Your task to perform on an android device: set the timer Image 0: 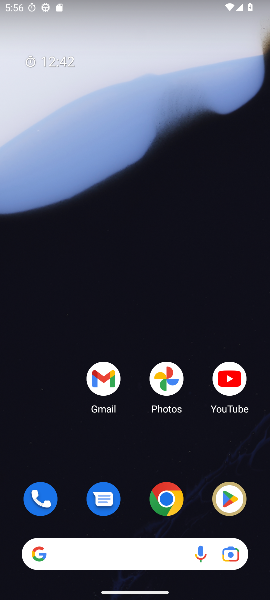
Step 0: drag from (78, 567) to (43, 81)
Your task to perform on an android device: set the timer Image 1: 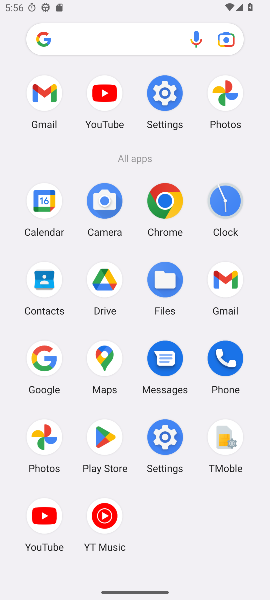
Step 1: click (204, 197)
Your task to perform on an android device: set the timer Image 2: 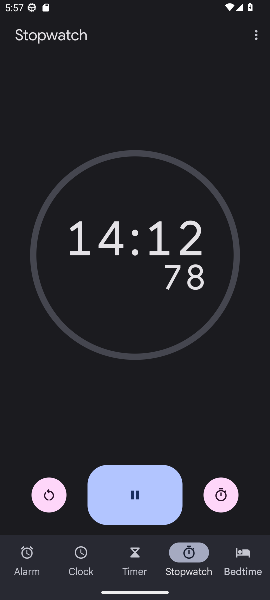
Step 2: click (131, 564)
Your task to perform on an android device: set the timer Image 3: 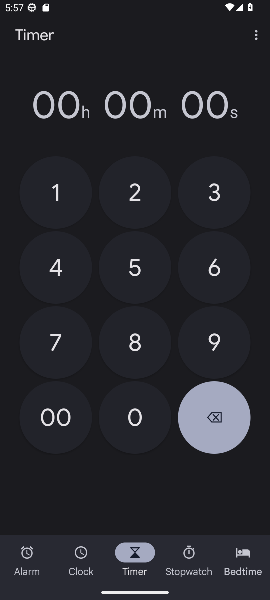
Step 3: click (128, 190)
Your task to perform on an android device: set the timer Image 4: 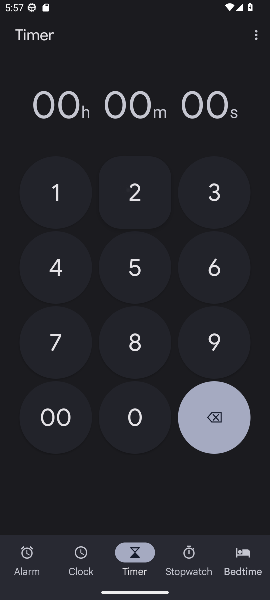
Step 4: click (136, 269)
Your task to perform on an android device: set the timer Image 5: 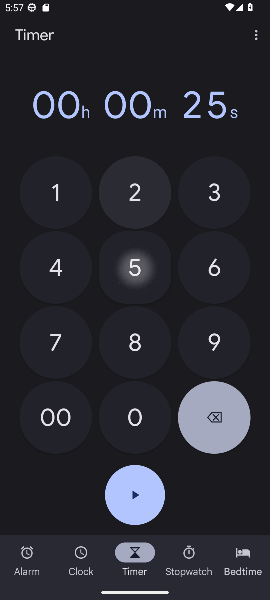
Step 5: click (123, 196)
Your task to perform on an android device: set the timer Image 6: 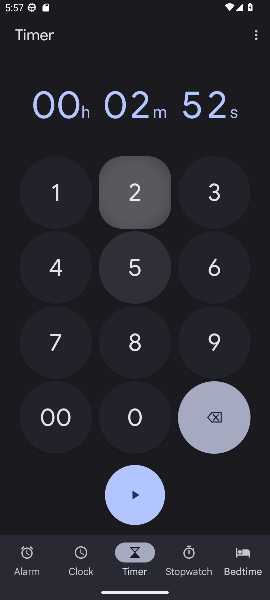
Step 6: click (142, 268)
Your task to perform on an android device: set the timer Image 7: 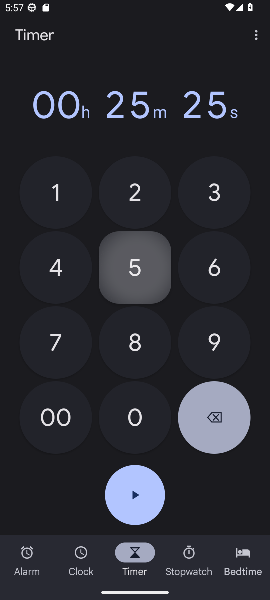
Step 7: click (140, 211)
Your task to perform on an android device: set the timer Image 8: 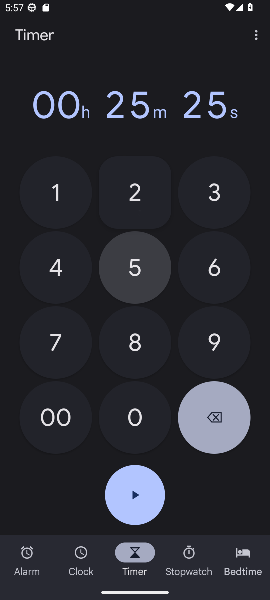
Step 8: click (146, 253)
Your task to perform on an android device: set the timer Image 9: 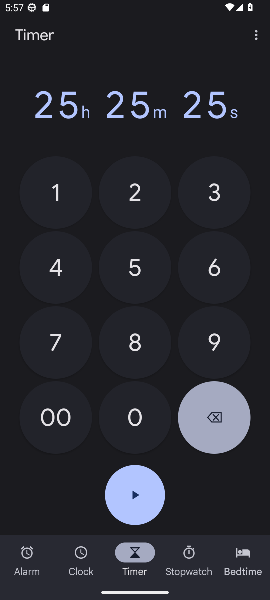
Step 9: click (129, 499)
Your task to perform on an android device: set the timer Image 10: 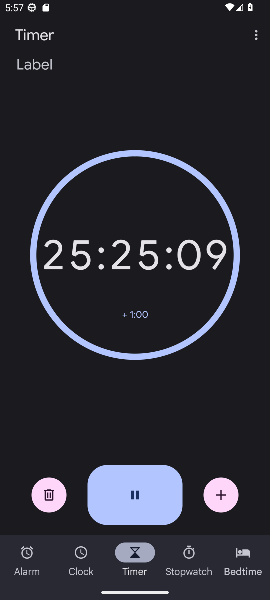
Step 10: task complete